Your task to perform on an android device: Show the shopping cart on amazon.com. Add "acer nitro" to the cart on amazon.com, then select checkout. Image 0: 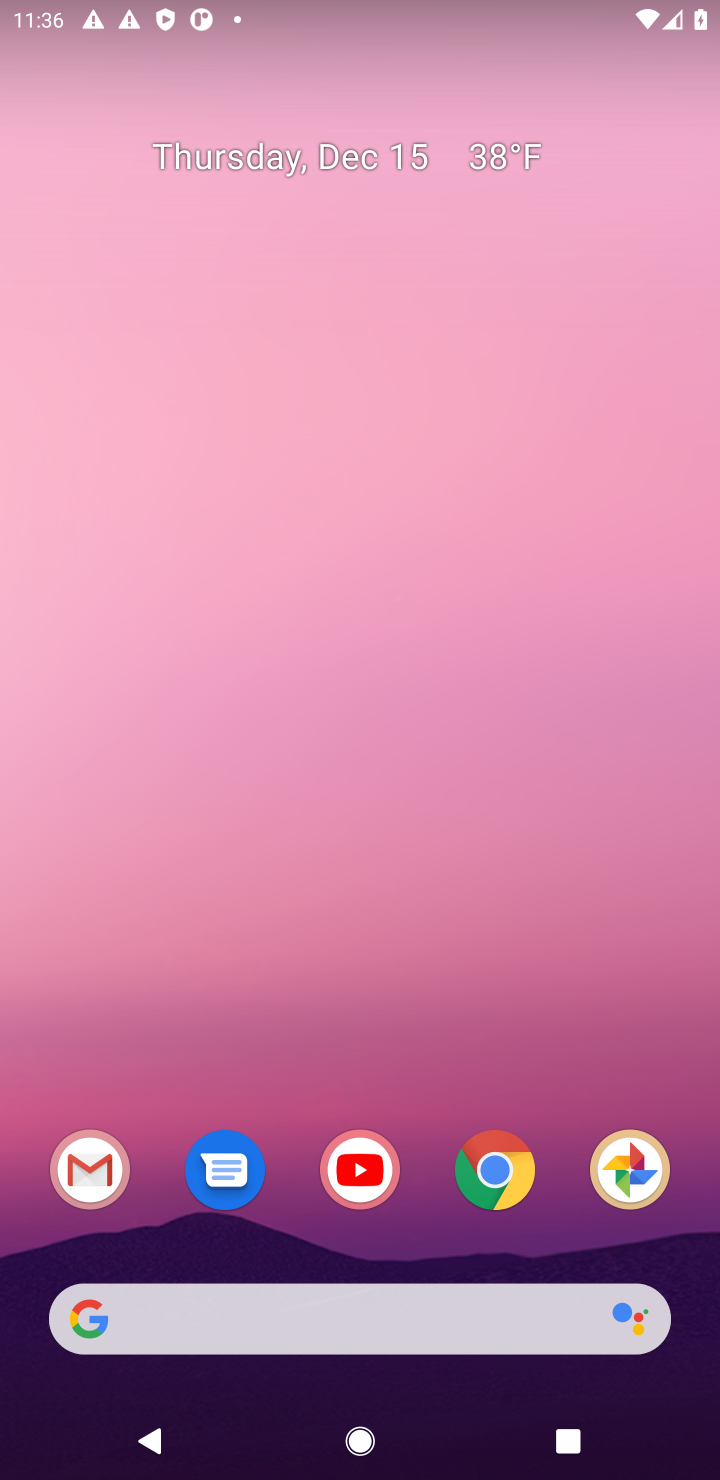
Step 0: click (496, 1179)
Your task to perform on an android device: Show the shopping cart on amazon.com. Add "acer nitro" to the cart on amazon.com, then select checkout. Image 1: 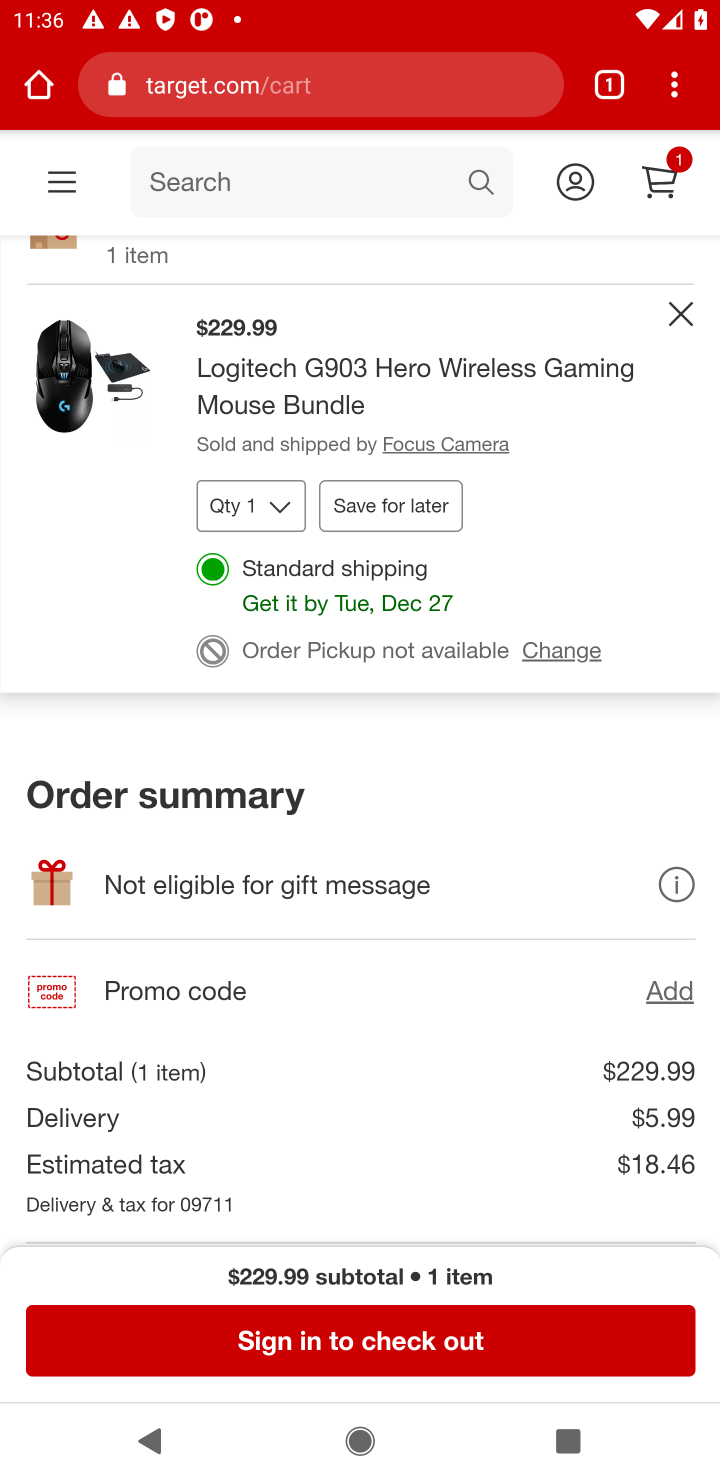
Step 1: click (219, 90)
Your task to perform on an android device: Show the shopping cart on amazon.com. Add "acer nitro" to the cart on amazon.com, then select checkout. Image 2: 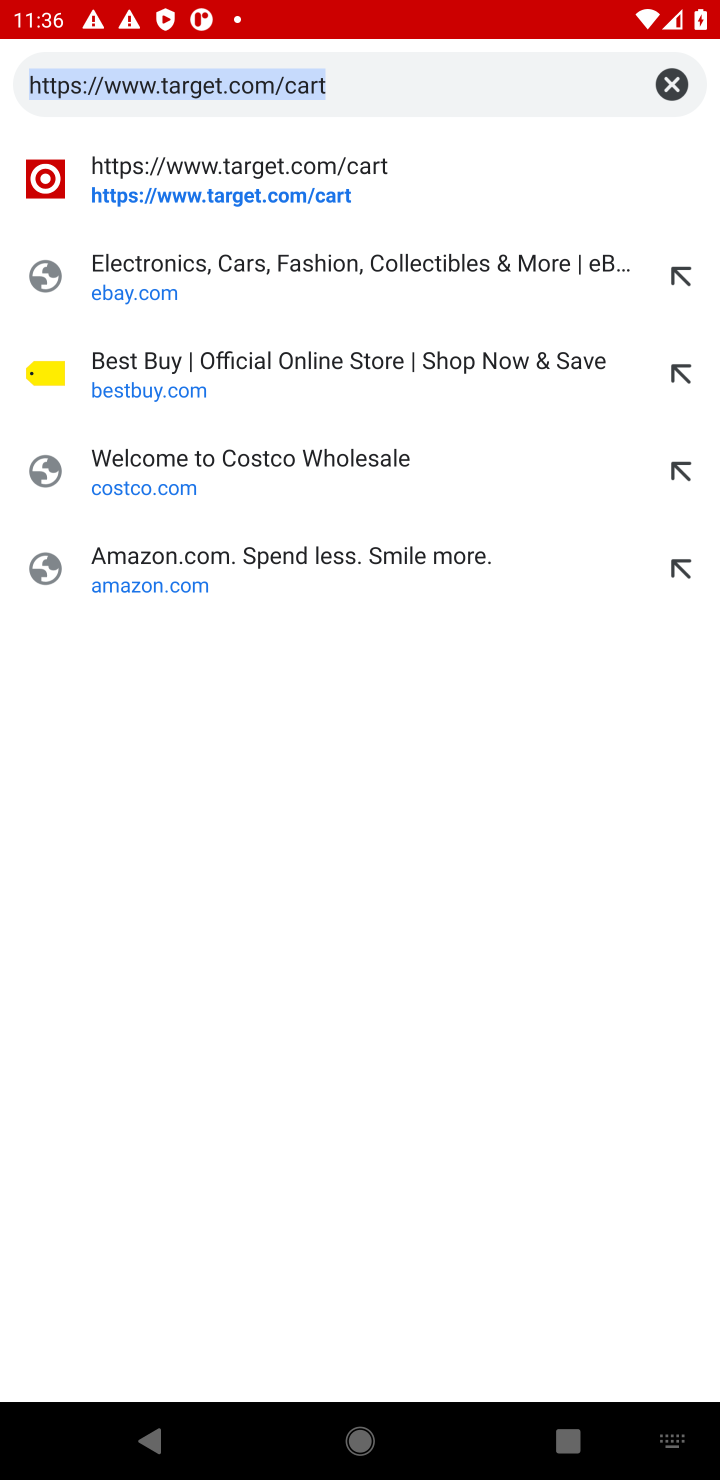
Step 2: click (121, 586)
Your task to perform on an android device: Show the shopping cart on amazon.com. Add "acer nitro" to the cart on amazon.com, then select checkout. Image 3: 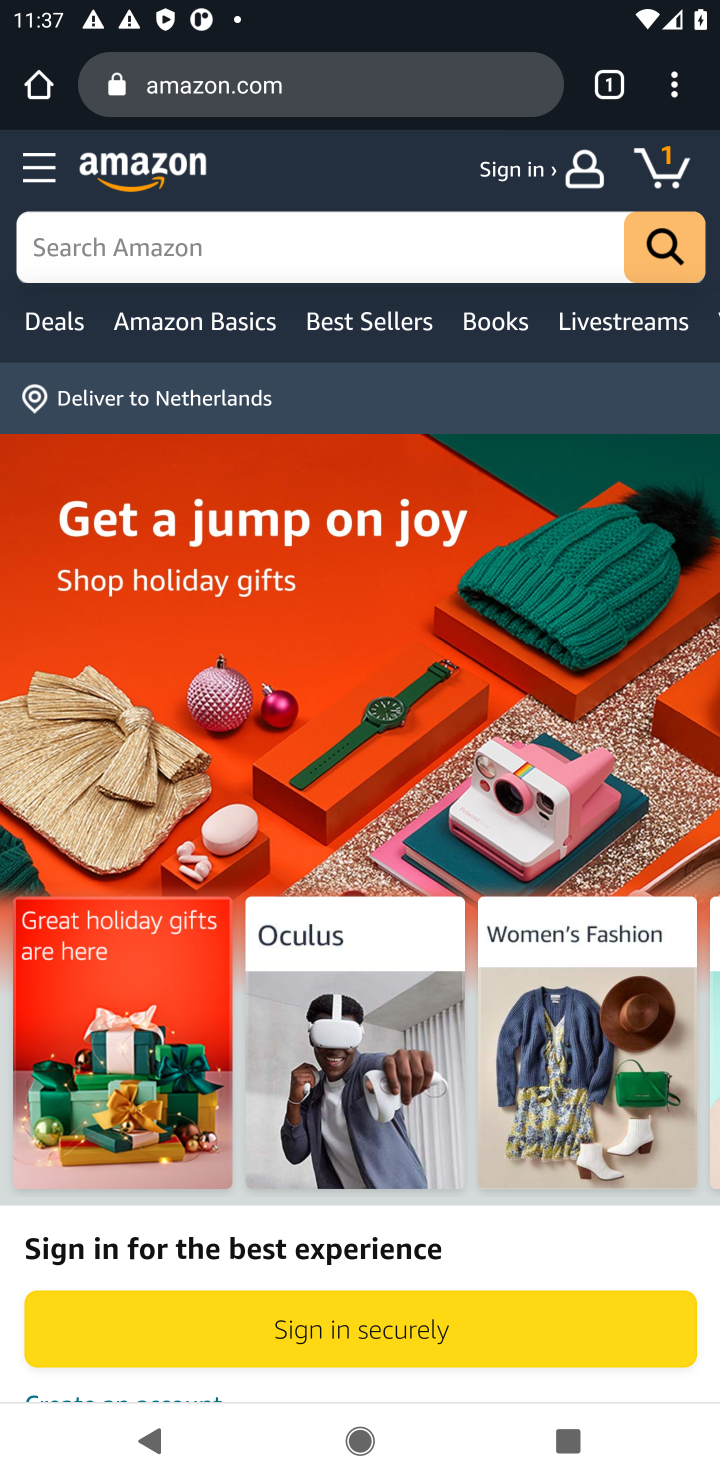
Step 3: click (666, 167)
Your task to perform on an android device: Show the shopping cart on amazon.com. Add "acer nitro" to the cart on amazon.com, then select checkout. Image 4: 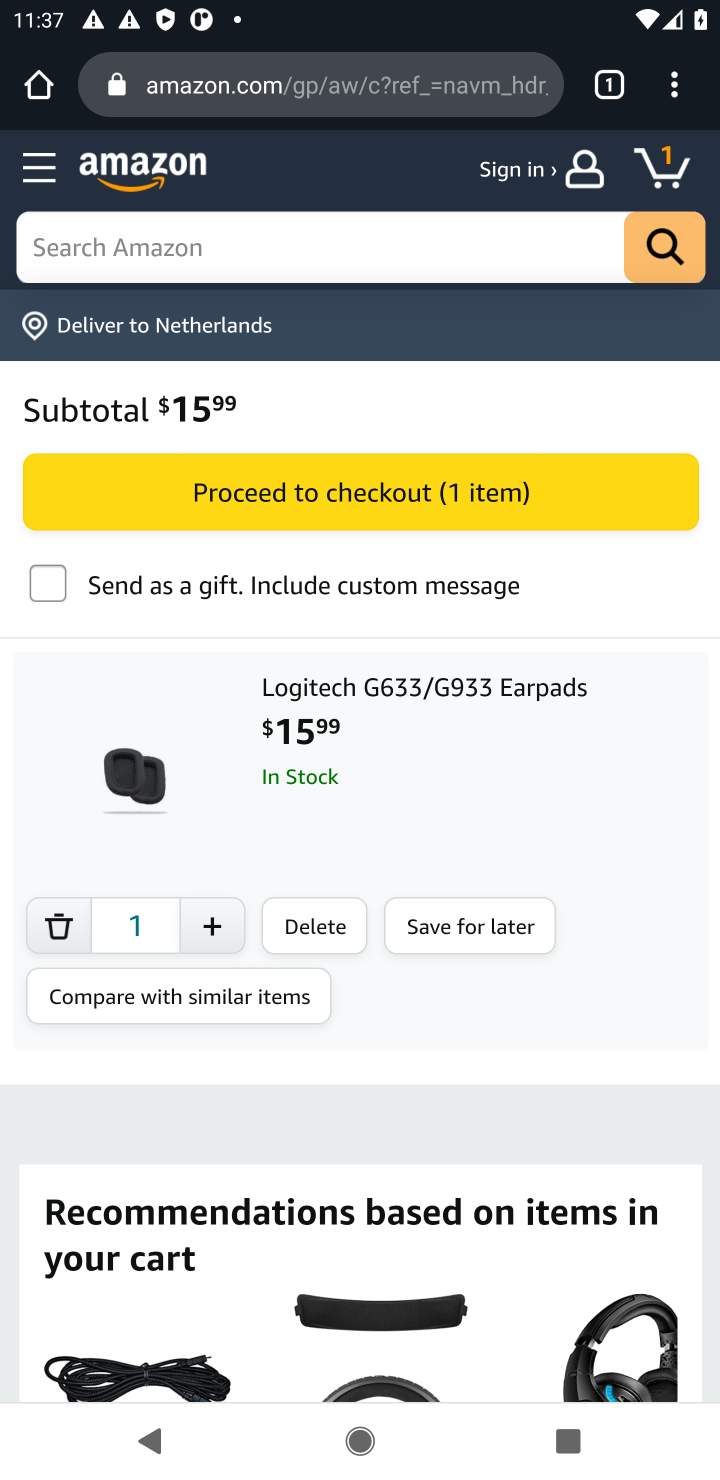
Step 4: click (98, 246)
Your task to perform on an android device: Show the shopping cart on amazon.com. Add "acer nitro" to the cart on amazon.com, then select checkout. Image 5: 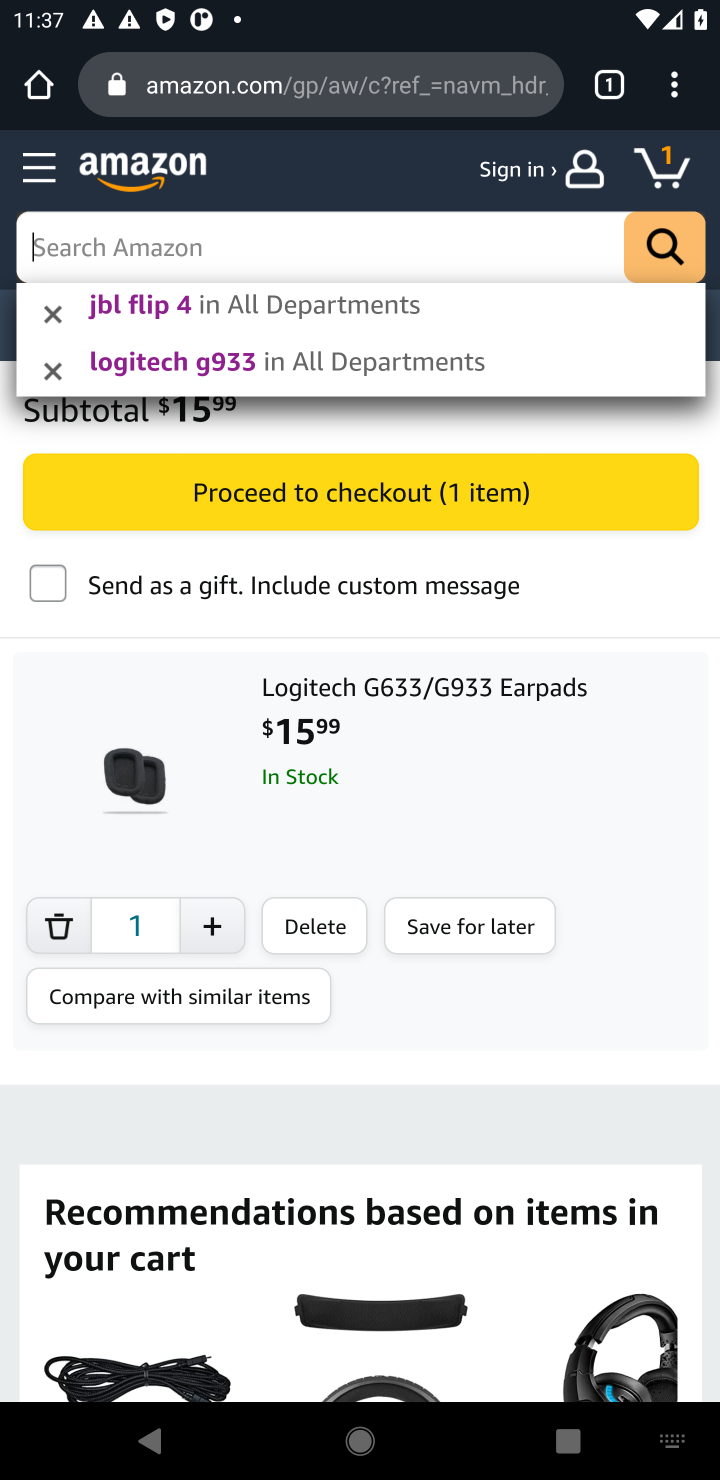
Step 5: type "acer nitro"
Your task to perform on an android device: Show the shopping cart on amazon.com. Add "acer nitro" to the cart on amazon.com, then select checkout. Image 6: 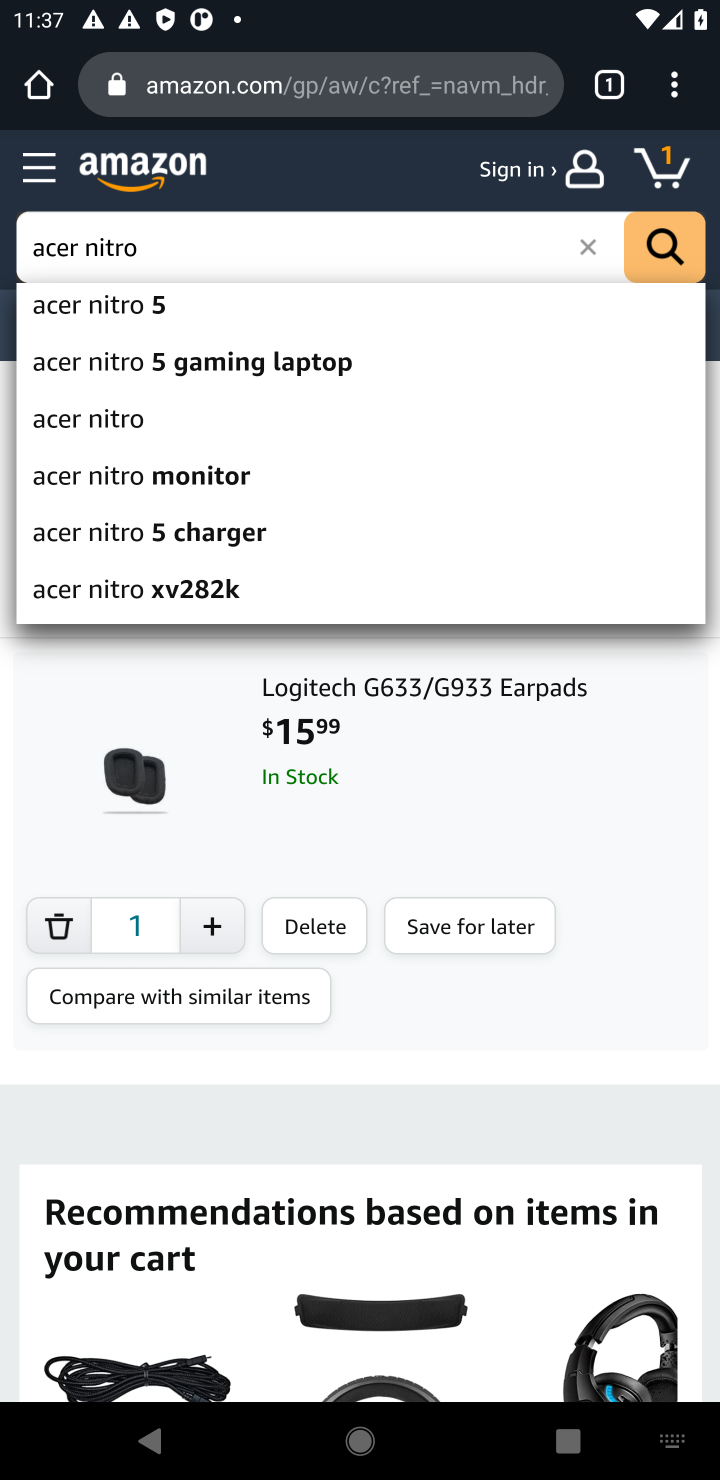
Step 6: click (85, 421)
Your task to perform on an android device: Show the shopping cart on amazon.com. Add "acer nitro" to the cart on amazon.com, then select checkout. Image 7: 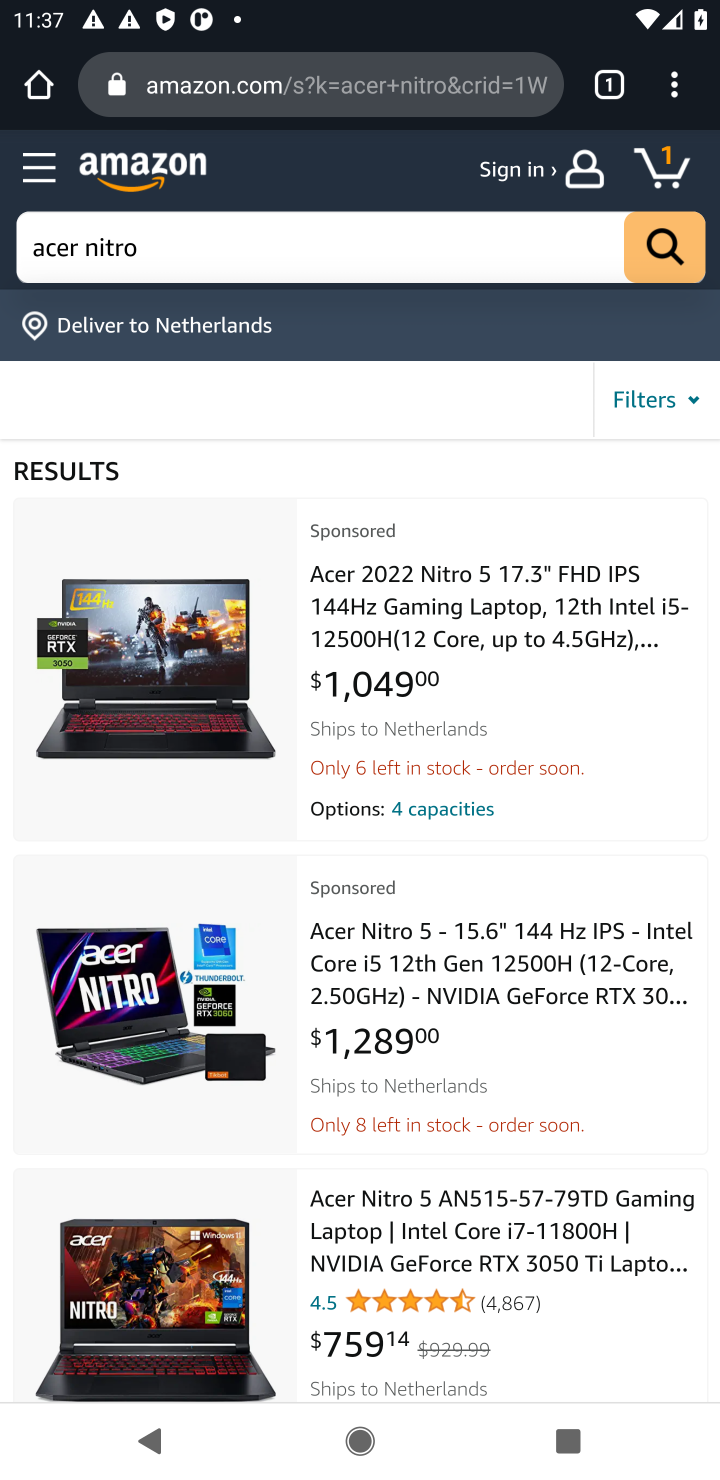
Step 7: click (456, 638)
Your task to perform on an android device: Show the shopping cart on amazon.com. Add "acer nitro" to the cart on amazon.com, then select checkout. Image 8: 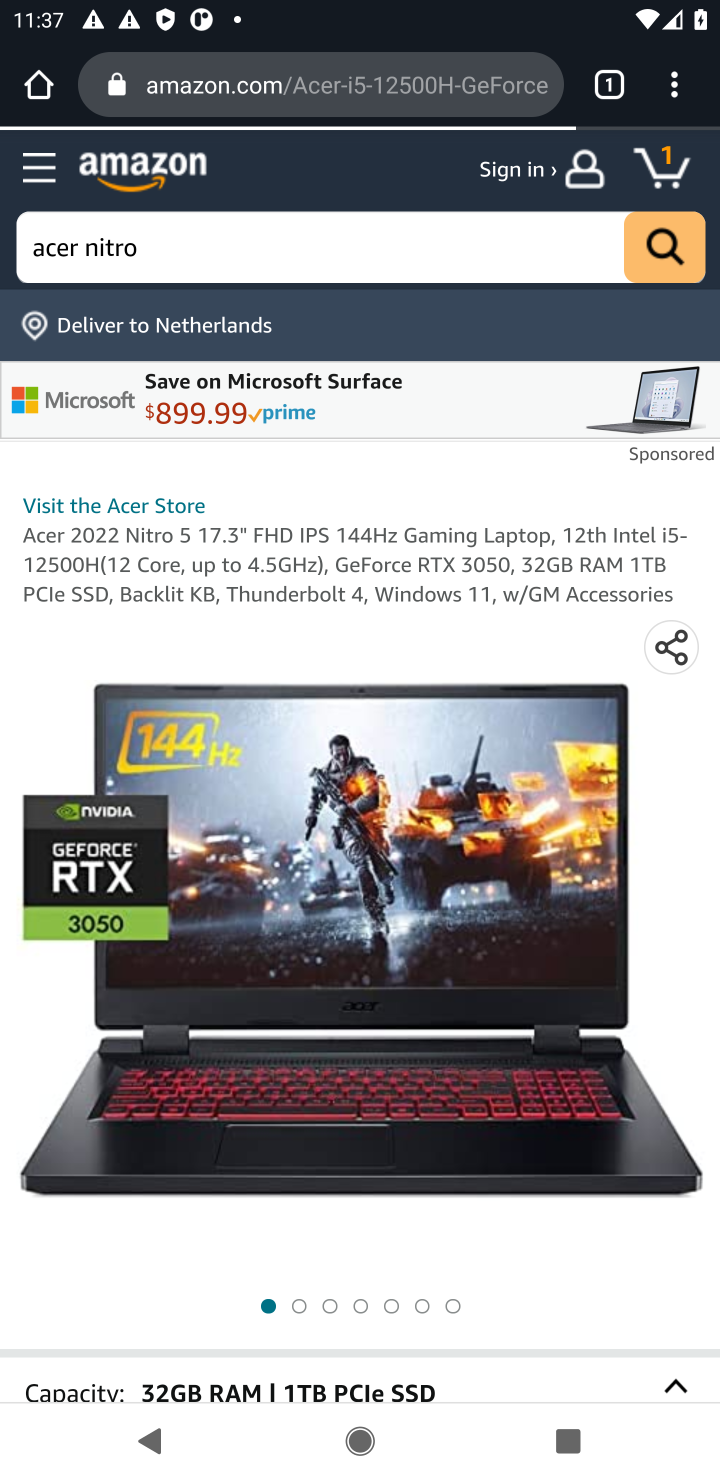
Step 8: drag from (339, 792) to (377, 365)
Your task to perform on an android device: Show the shopping cart on amazon.com. Add "acer nitro" to the cart on amazon.com, then select checkout. Image 9: 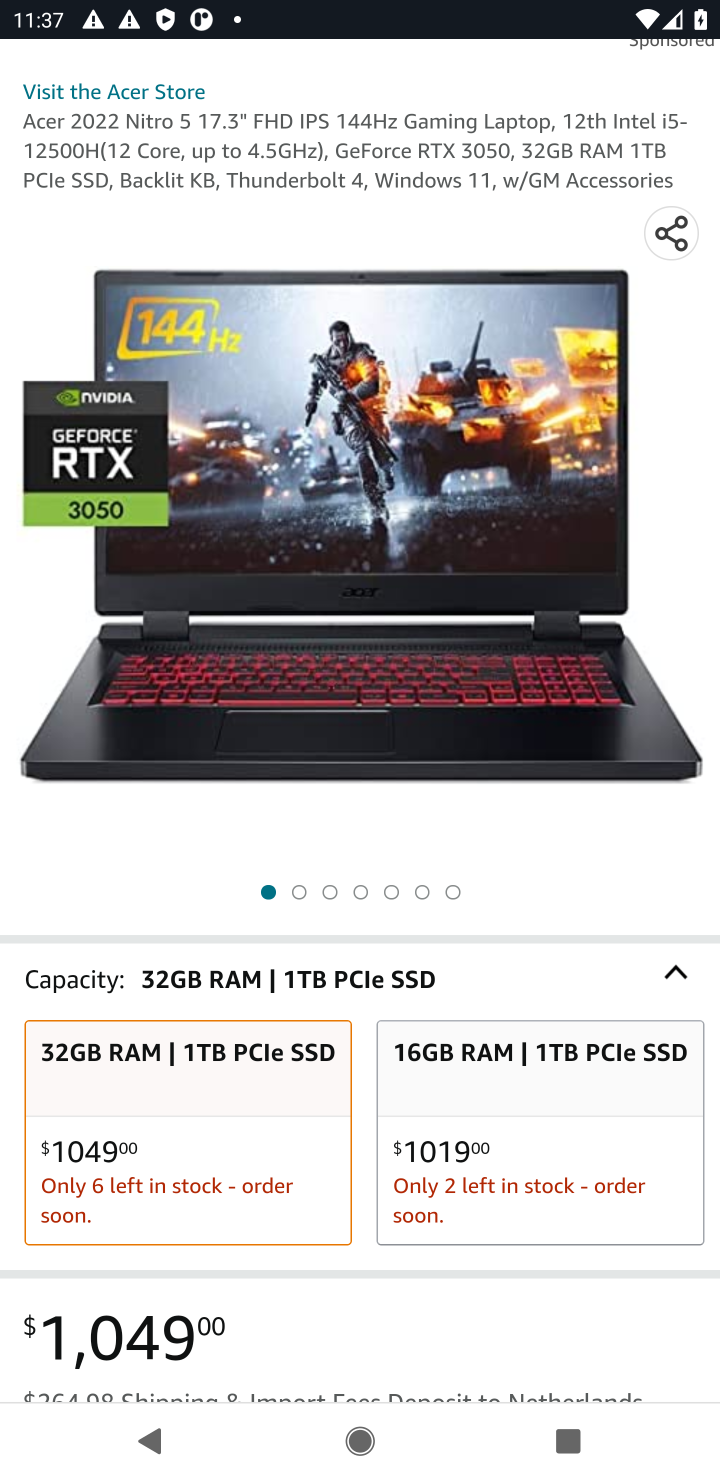
Step 9: drag from (293, 1283) to (316, 496)
Your task to perform on an android device: Show the shopping cart on amazon.com. Add "acer nitro" to the cart on amazon.com, then select checkout. Image 10: 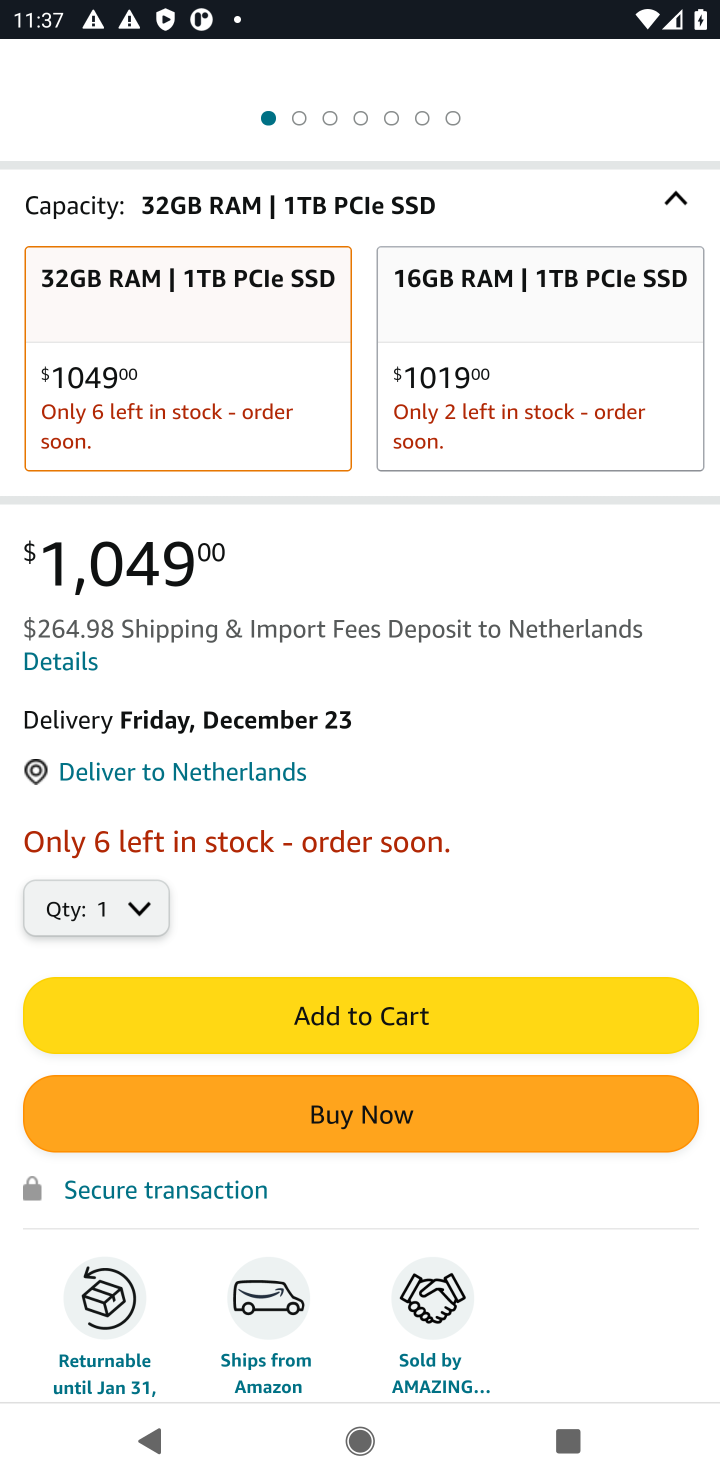
Step 10: click (314, 1016)
Your task to perform on an android device: Show the shopping cart on amazon.com. Add "acer nitro" to the cart on amazon.com, then select checkout. Image 11: 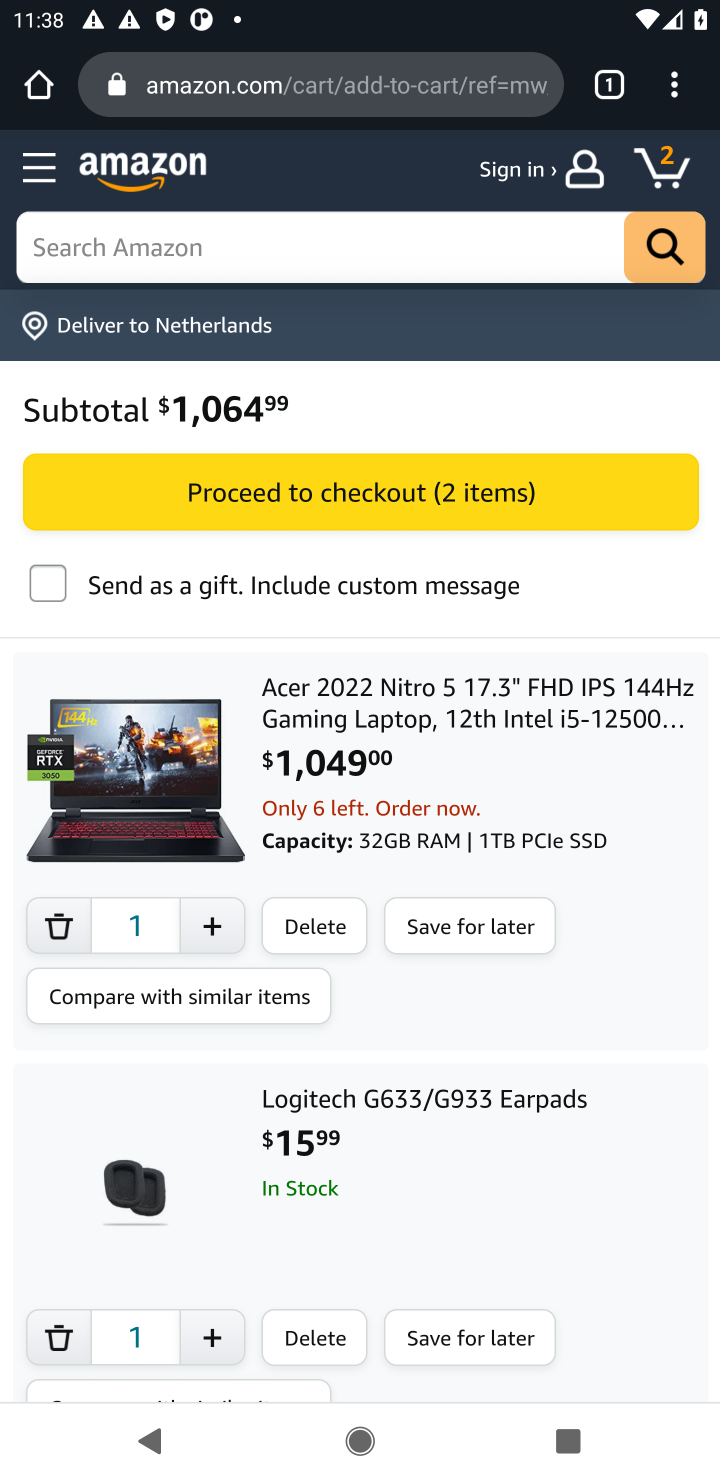
Step 11: click (327, 488)
Your task to perform on an android device: Show the shopping cart on amazon.com. Add "acer nitro" to the cart on amazon.com, then select checkout. Image 12: 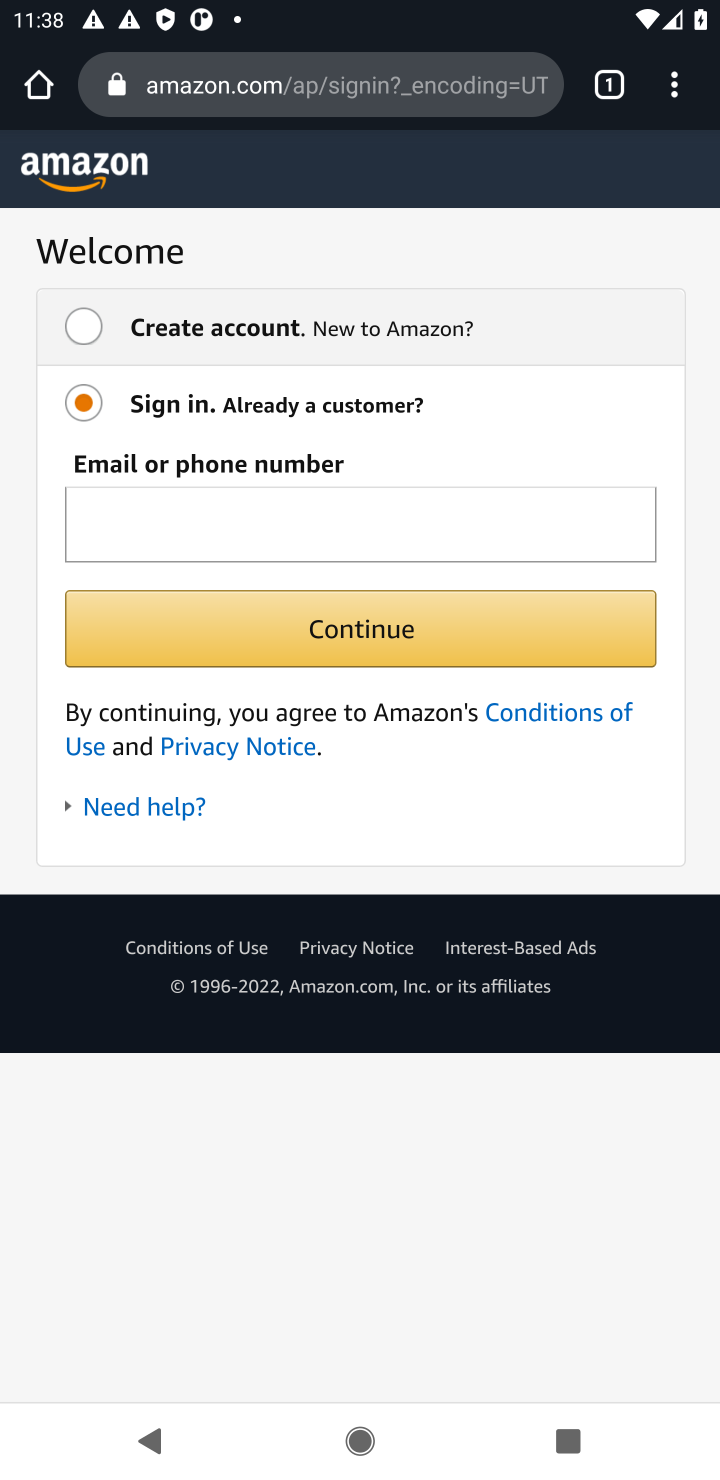
Step 12: task complete